Your task to perform on an android device: Do I have any events today? Image 0: 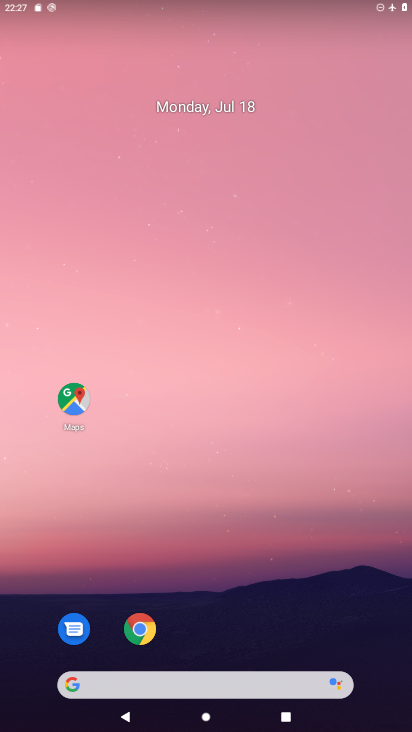
Step 0: drag from (290, 577) to (231, 62)
Your task to perform on an android device: Do I have any events today? Image 1: 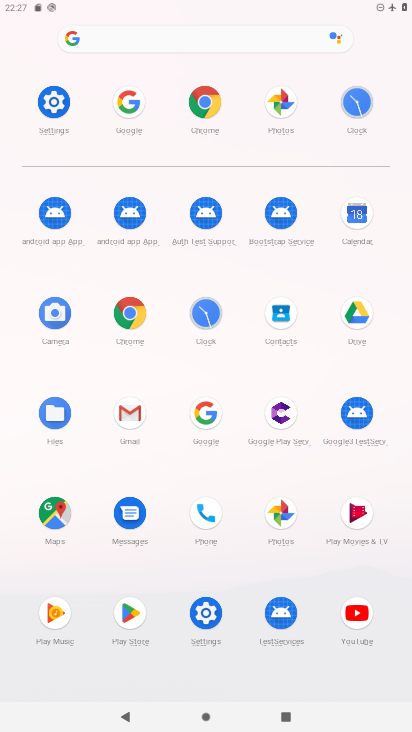
Step 1: click (356, 210)
Your task to perform on an android device: Do I have any events today? Image 2: 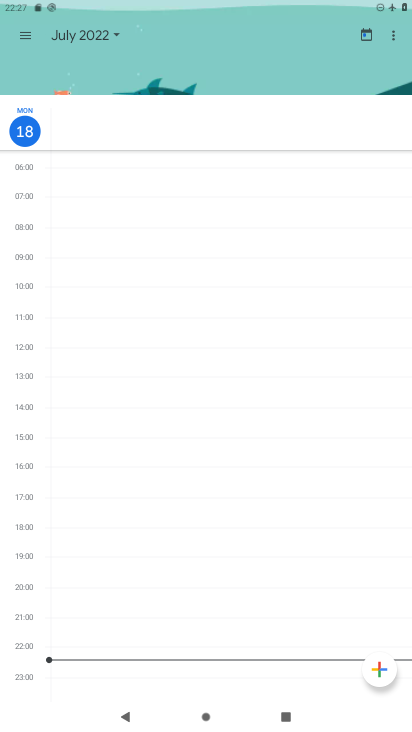
Step 2: task complete